Your task to perform on an android device: Show me popular videos on Youtube Image 0: 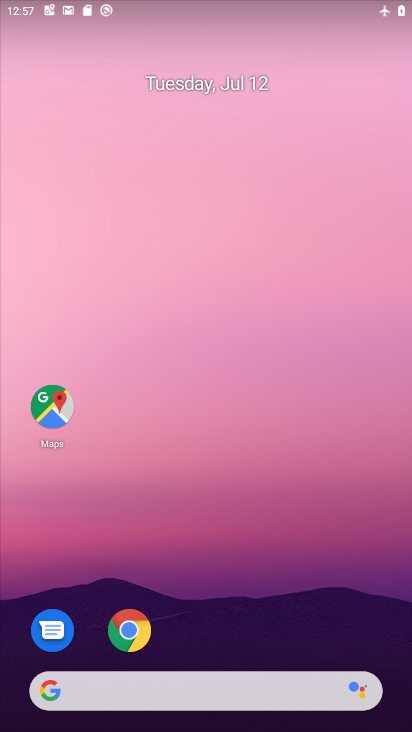
Step 0: drag from (245, 665) to (252, 90)
Your task to perform on an android device: Show me popular videos on Youtube Image 1: 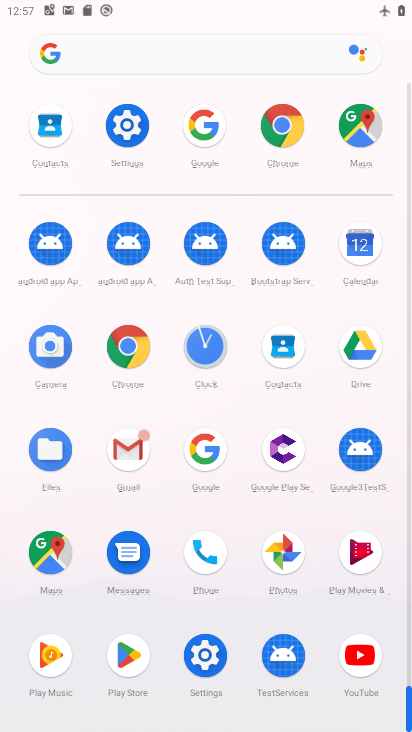
Step 1: drag from (264, 578) to (264, 295)
Your task to perform on an android device: Show me popular videos on Youtube Image 2: 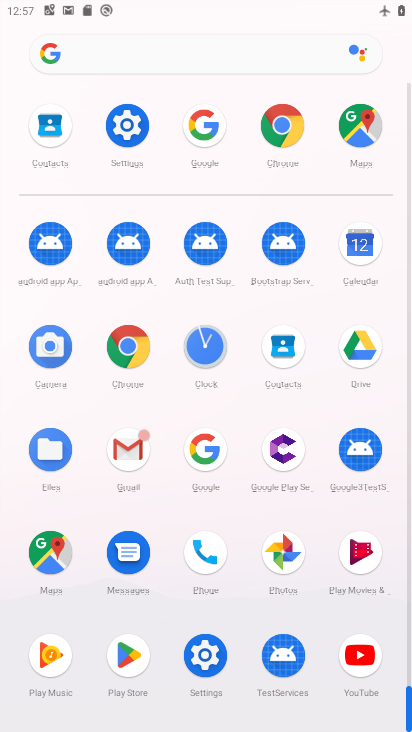
Step 2: click (364, 662)
Your task to perform on an android device: Show me popular videos on Youtube Image 3: 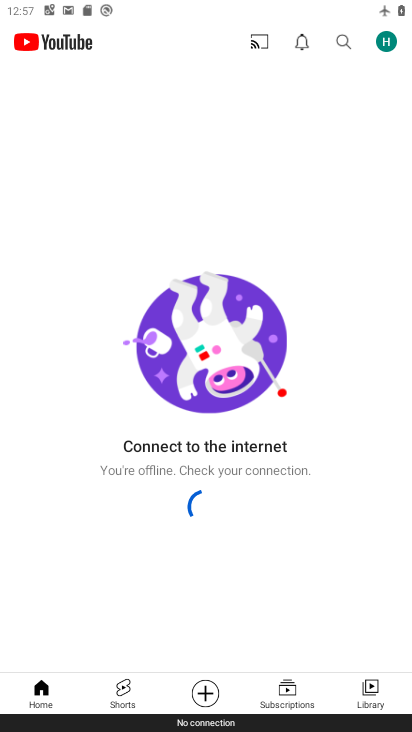
Step 3: click (29, 702)
Your task to perform on an android device: Show me popular videos on Youtube Image 4: 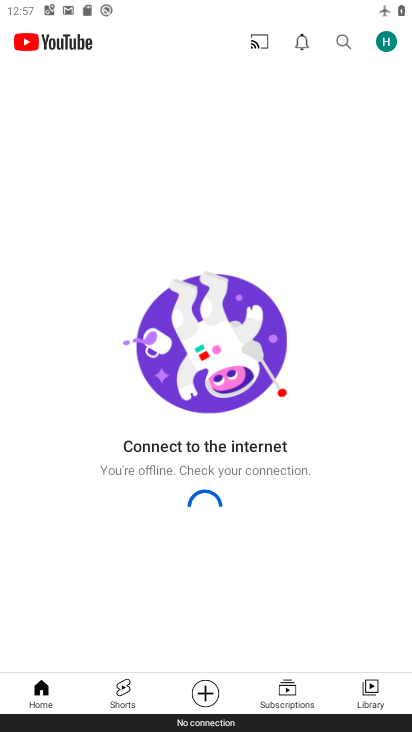
Step 4: task complete